Your task to perform on an android device: Open notification settings Image 0: 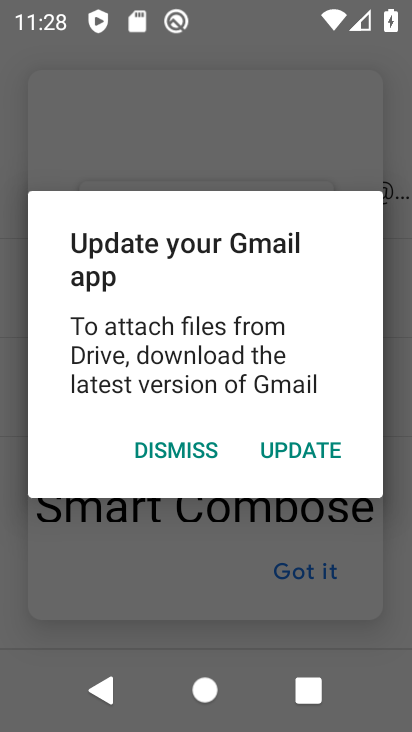
Step 0: press home button
Your task to perform on an android device: Open notification settings Image 1: 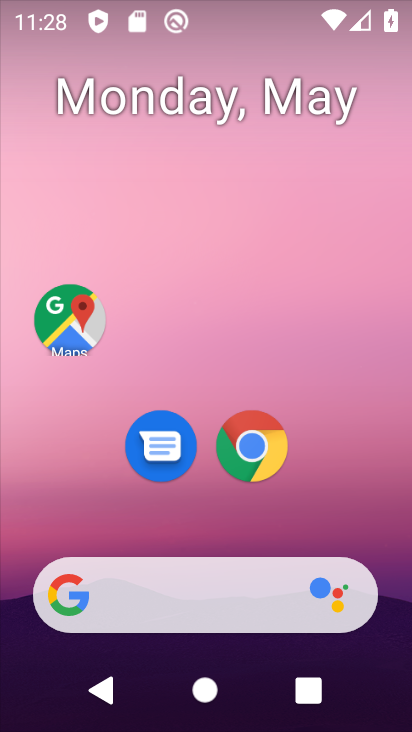
Step 1: click (188, 57)
Your task to perform on an android device: Open notification settings Image 2: 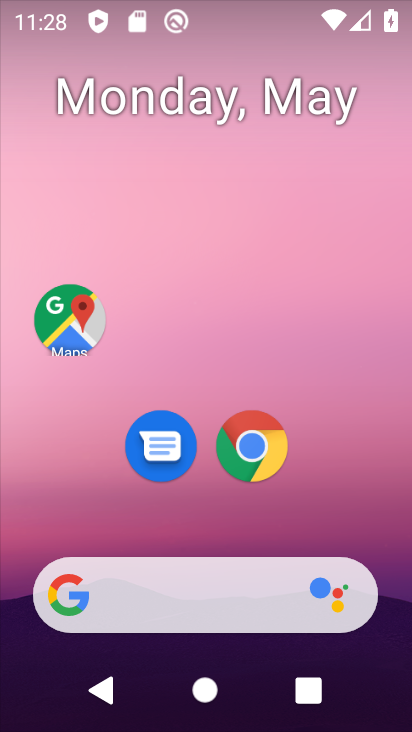
Step 2: drag from (322, 485) to (252, 69)
Your task to perform on an android device: Open notification settings Image 3: 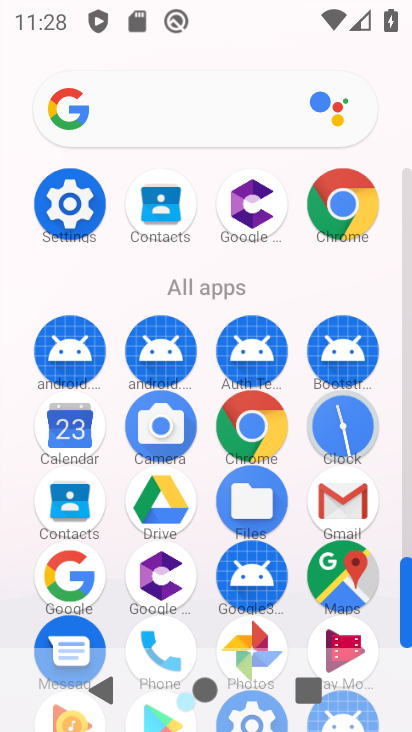
Step 3: click (73, 193)
Your task to perform on an android device: Open notification settings Image 4: 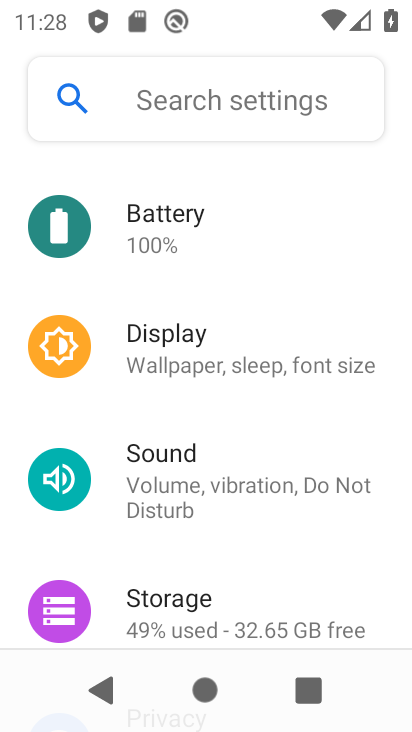
Step 4: drag from (250, 267) to (320, 695)
Your task to perform on an android device: Open notification settings Image 5: 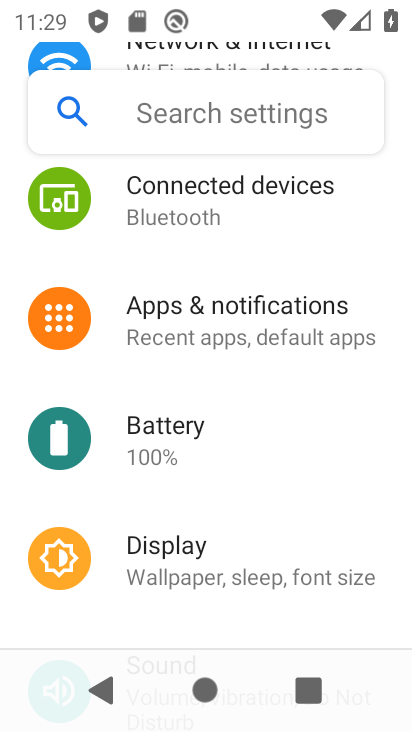
Step 5: click (252, 301)
Your task to perform on an android device: Open notification settings Image 6: 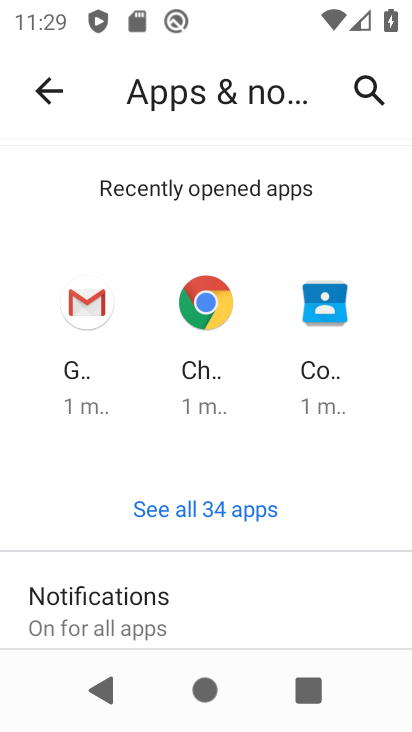
Step 6: drag from (281, 570) to (249, 309)
Your task to perform on an android device: Open notification settings Image 7: 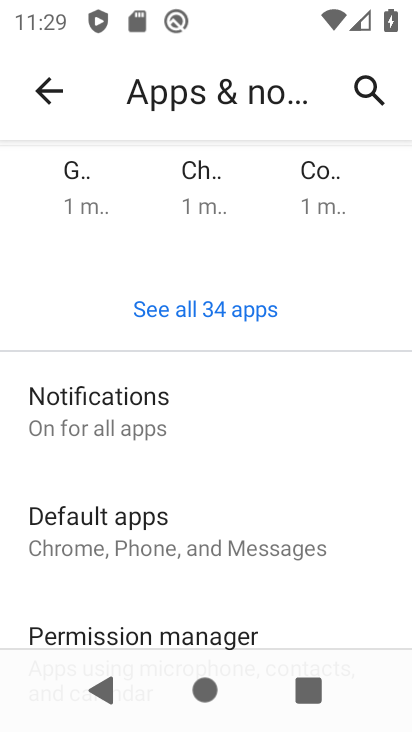
Step 7: click (112, 404)
Your task to perform on an android device: Open notification settings Image 8: 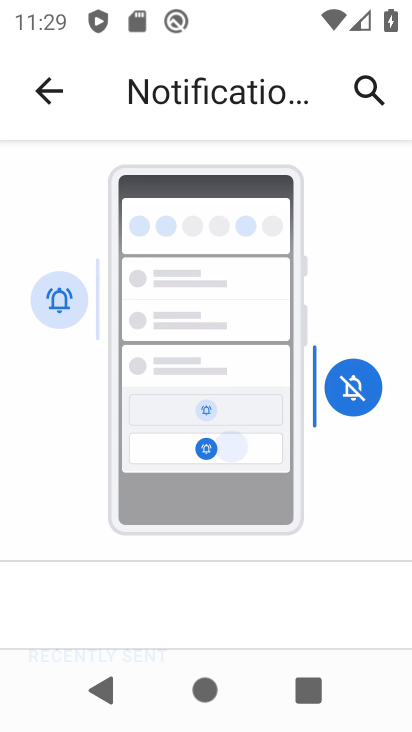
Step 8: task complete